Your task to perform on an android device: check data usage Image 0: 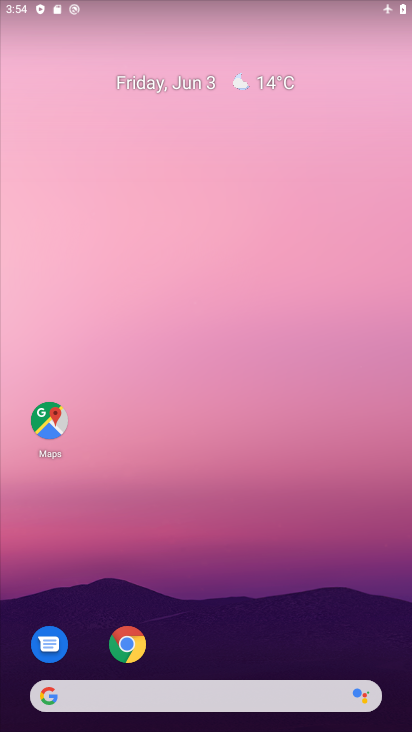
Step 0: drag from (332, 8) to (325, 227)
Your task to perform on an android device: check data usage Image 1: 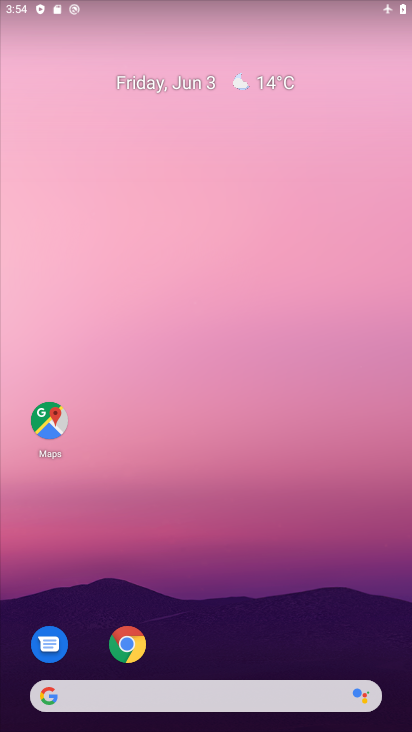
Step 1: drag from (229, 9) to (255, 357)
Your task to perform on an android device: check data usage Image 2: 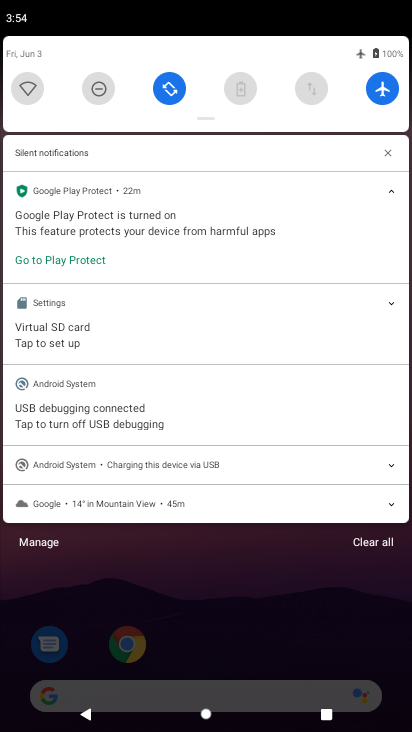
Step 2: click (321, 85)
Your task to perform on an android device: check data usage Image 3: 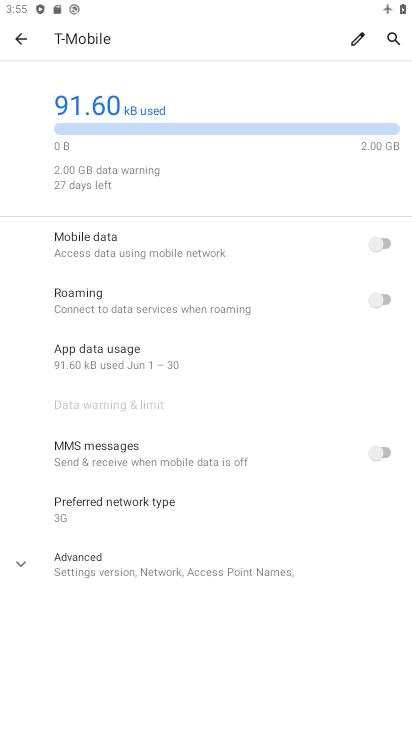
Step 3: task complete